Your task to perform on an android device: turn on priority inbox in the gmail app Image 0: 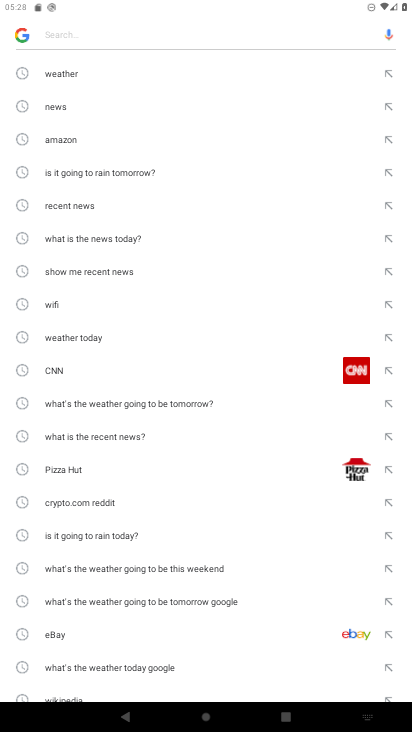
Step 0: press home button
Your task to perform on an android device: turn on priority inbox in the gmail app Image 1: 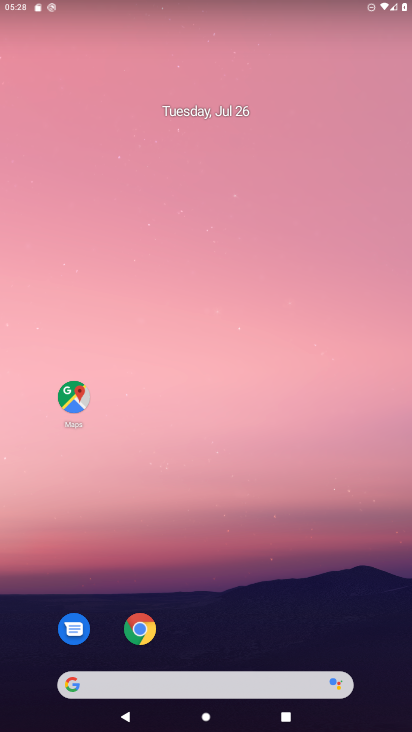
Step 1: drag from (200, 630) to (206, 92)
Your task to perform on an android device: turn on priority inbox in the gmail app Image 2: 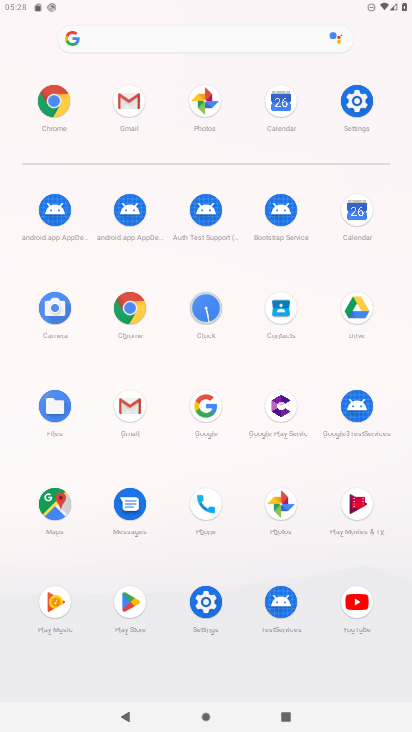
Step 2: click (130, 411)
Your task to perform on an android device: turn on priority inbox in the gmail app Image 3: 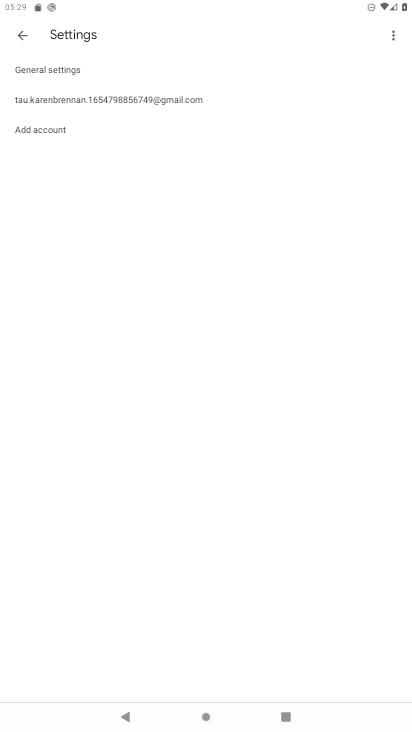
Step 3: click (88, 98)
Your task to perform on an android device: turn on priority inbox in the gmail app Image 4: 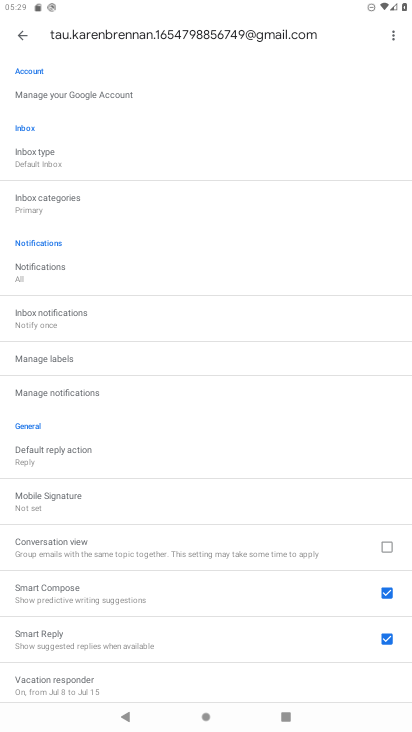
Step 4: click (39, 160)
Your task to perform on an android device: turn on priority inbox in the gmail app Image 5: 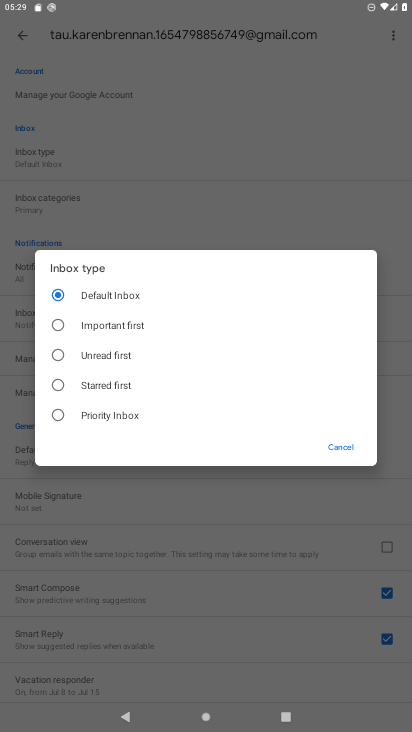
Step 5: click (54, 409)
Your task to perform on an android device: turn on priority inbox in the gmail app Image 6: 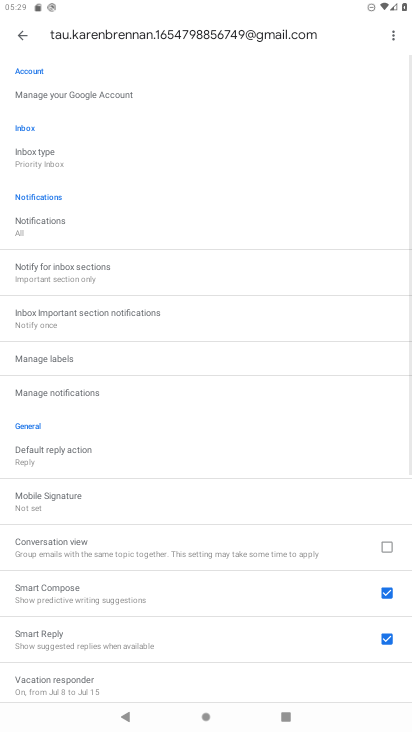
Step 6: task complete